Your task to perform on an android device: turn notification dots off Image 0: 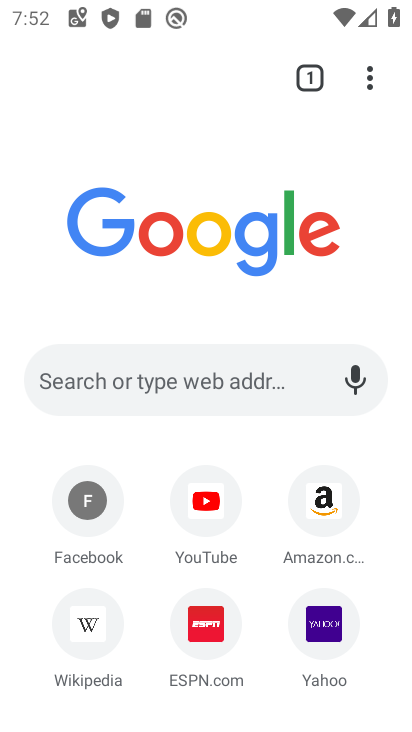
Step 0: press home button
Your task to perform on an android device: turn notification dots off Image 1: 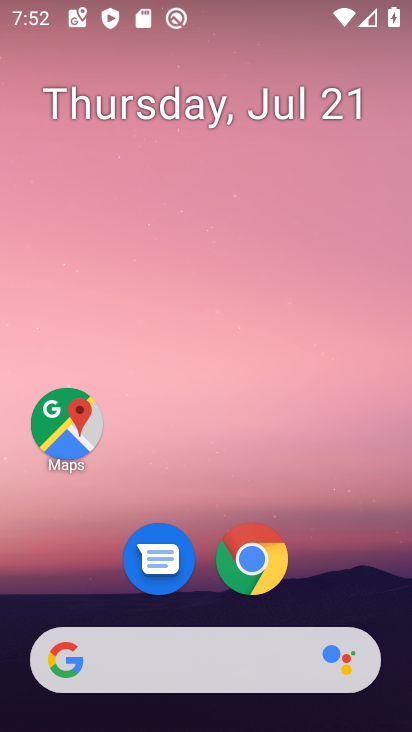
Step 1: drag from (163, 696) to (179, 203)
Your task to perform on an android device: turn notification dots off Image 2: 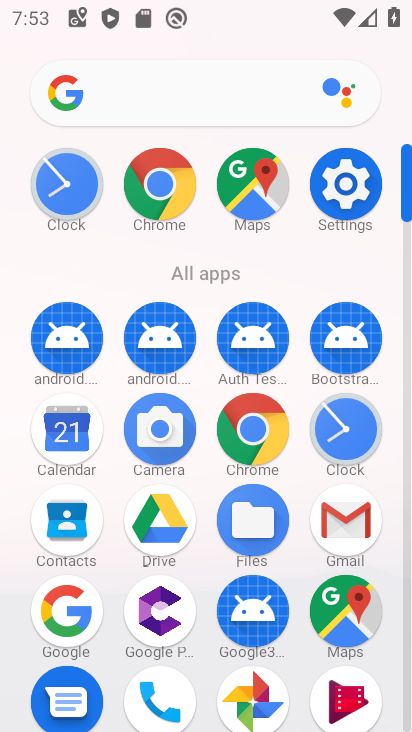
Step 2: click (362, 194)
Your task to perform on an android device: turn notification dots off Image 3: 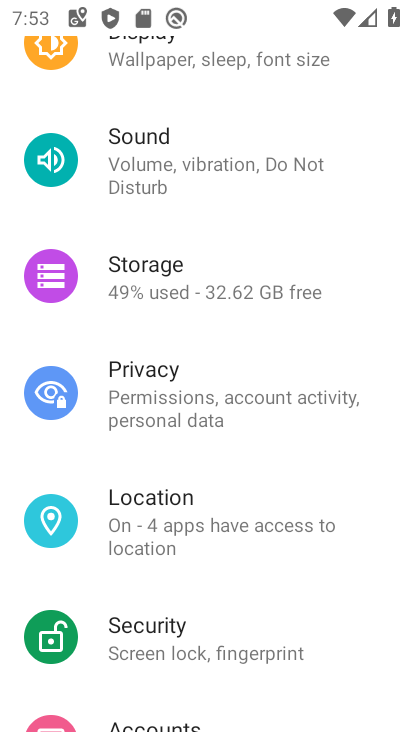
Step 3: drag from (161, 403) to (157, 540)
Your task to perform on an android device: turn notification dots off Image 4: 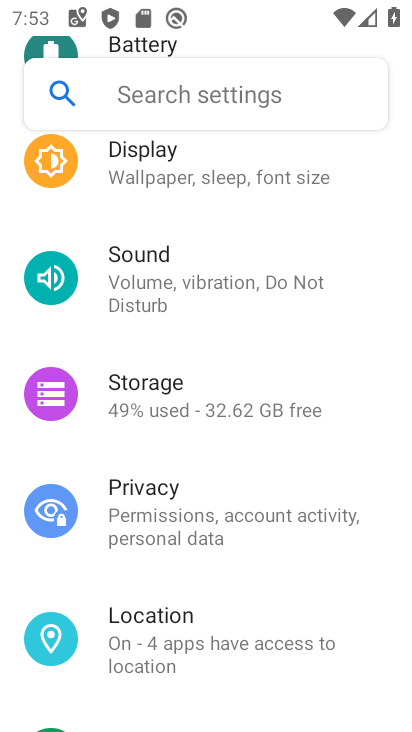
Step 4: drag from (233, 368) to (233, 550)
Your task to perform on an android device: turn notification dots off Image 5: 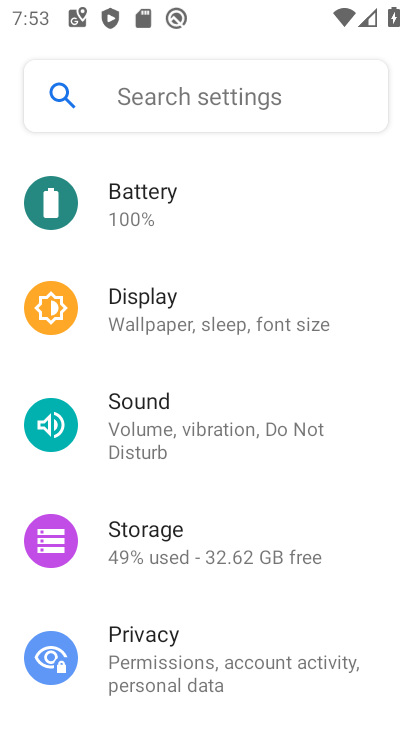
Step 5: drag from (234, 355) to (207, 581)
Your task to perform on an android device: turn notification dots off Image 6: 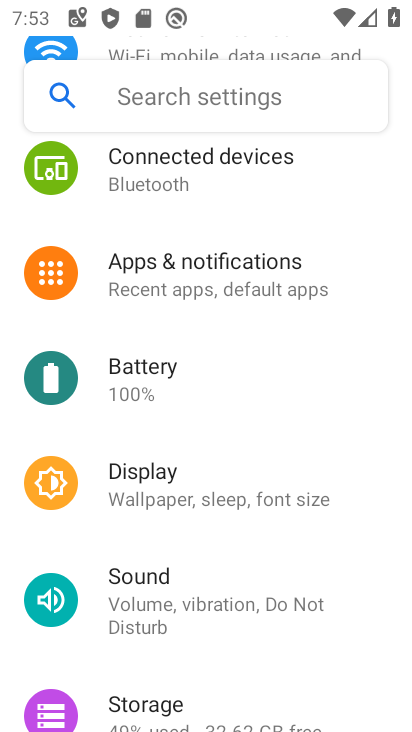
Step 6: click (242, 274)
Your task to perform on an android device: turn notification dots off Image 7: 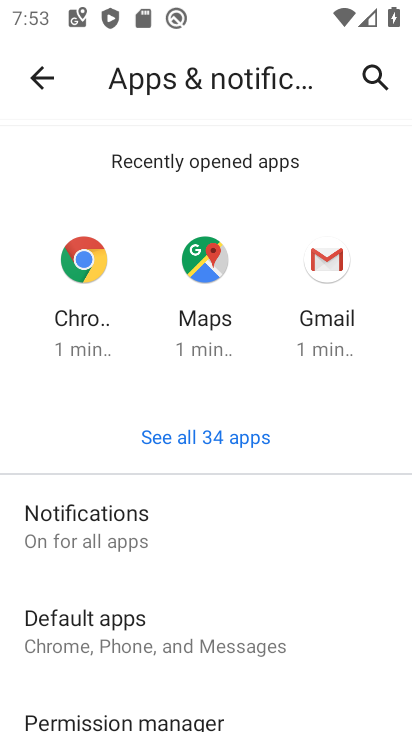
Step 7: drag from (145, 589) to (172, 369)
Your task to perform on an android device: turn notification dots off Image 8: 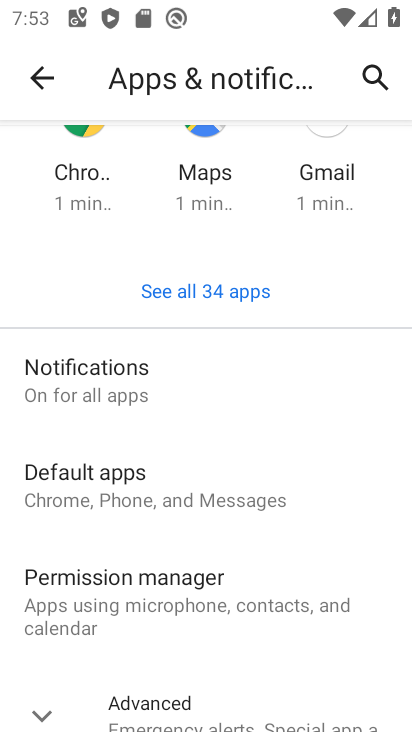
Step 8: drag from (188, 605) to (234, 331)
Your task to perform on an android device: turn notification dots off Image 9: 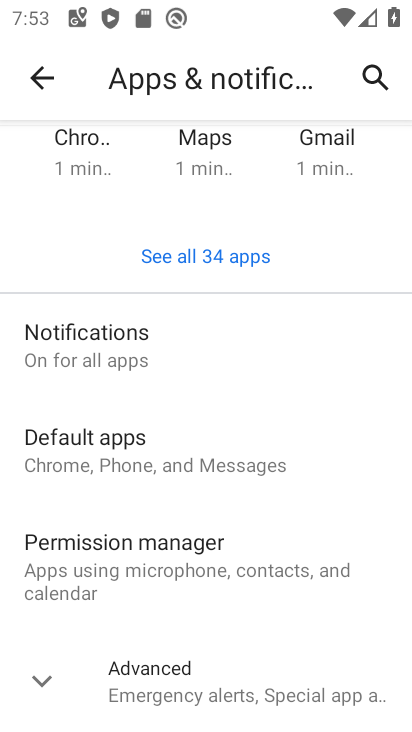
Step 9: click (214, 348)
Your task to perform on an android device: turn notification dots off Image 10: 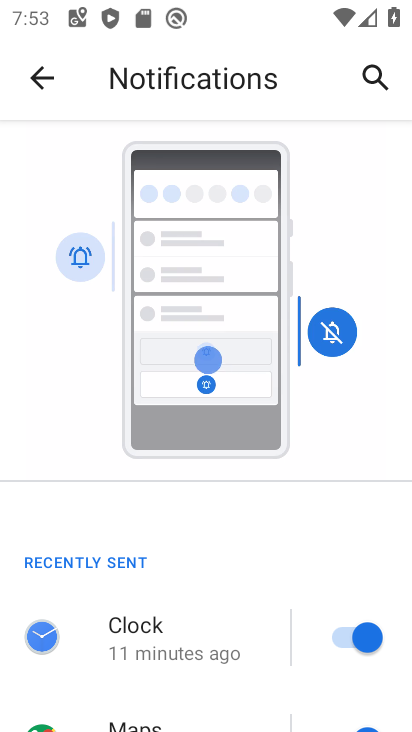
Step 10: drag from (218, 553) to (271, 308)
Your task to perform on an android device: turn notification dots off Image 11: 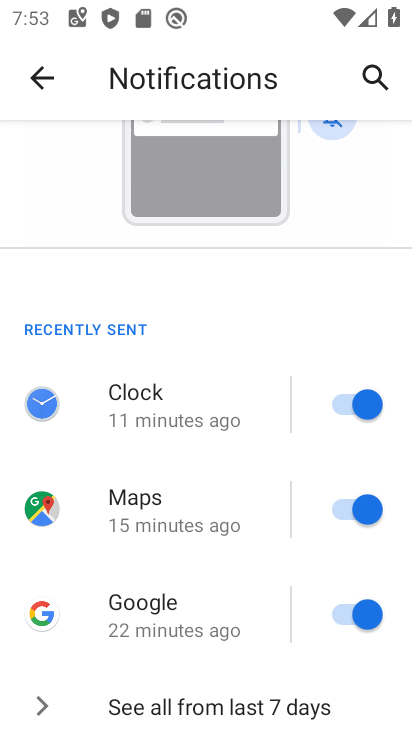
Step 11: drag from (218, 612) to (258, 356)
Your task to perform on an android device: turn notification dots off Image 12: 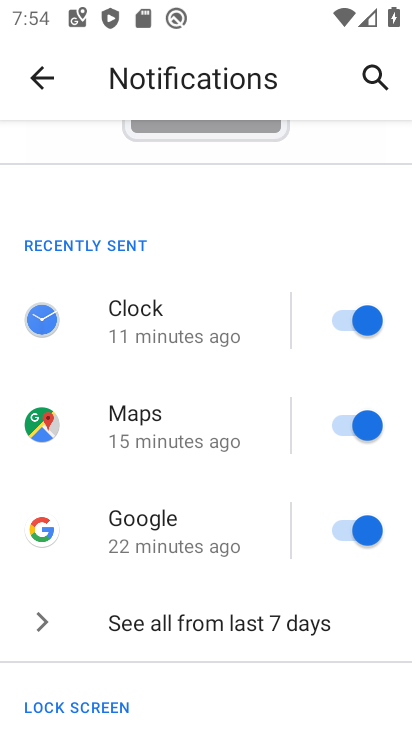
Step 12: drag from (230, 594) to (332, 163)
Your task to perform on an android device: turn notification dots off Image 13: 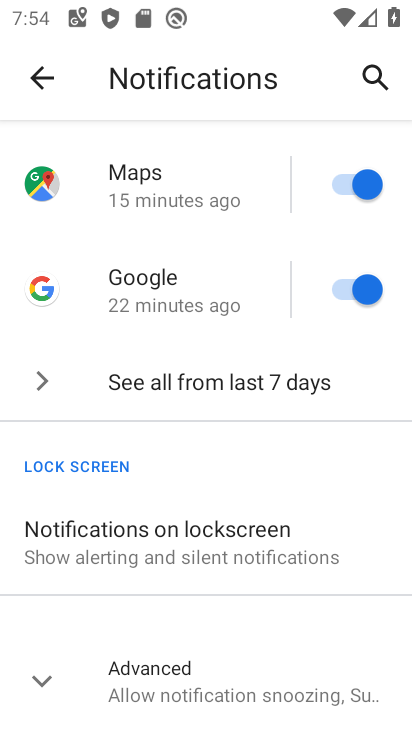
Step 13: click (207, 647)
Your task to perform on an android device: turn notification dots off Image 14: 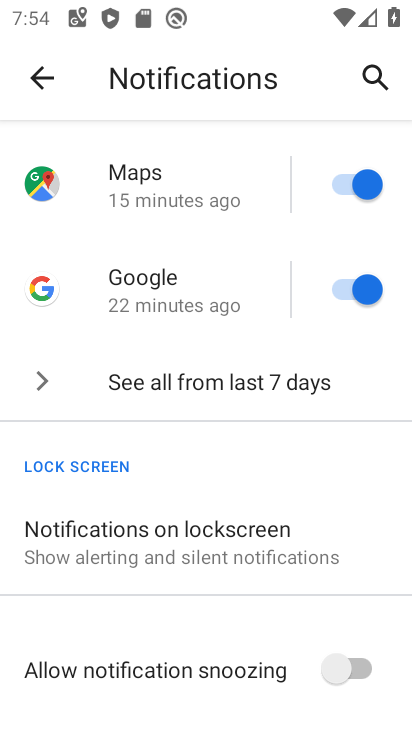
Step 14: drag from (205, 616) to (314, 200)
Your task to perform on an android device: turn notification dots off Image 15: 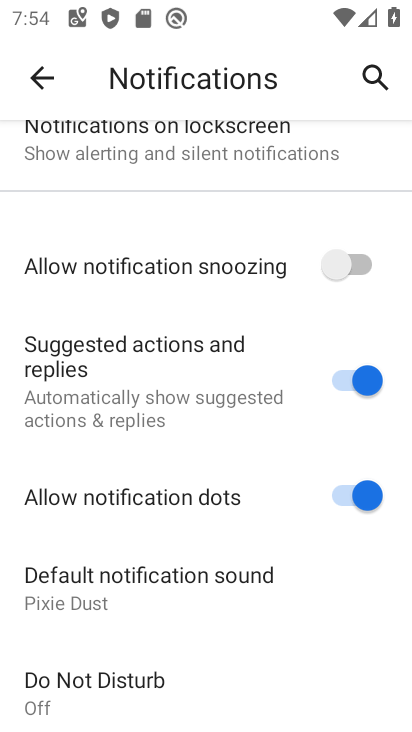
Step 15: click (237, 495)
Your task to perform on an android device: turn notification dots off Image 16: 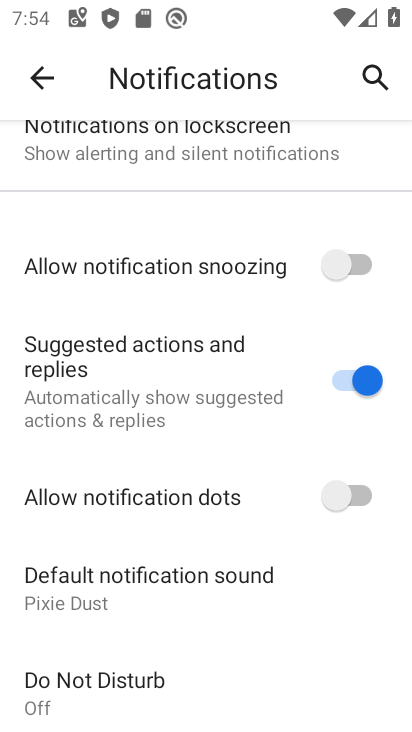
Step 16: task complete